Your task to perform on an android device: turn off smart reply in the gmail app Image 0: 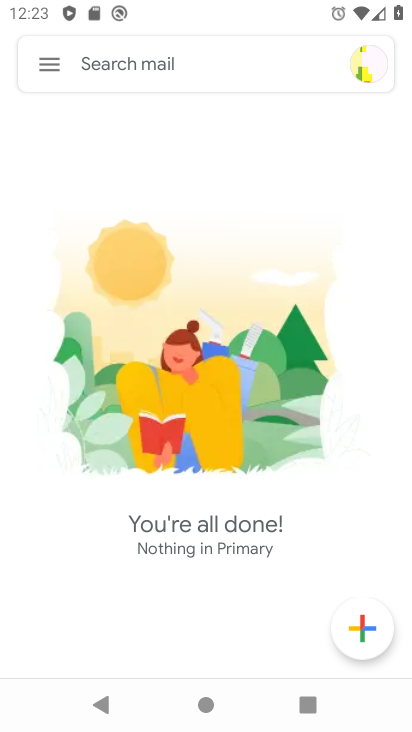
Step 0: click (52, 69)
Your task to perform on an android device: turn off smart reply in the gmail app Image 1: 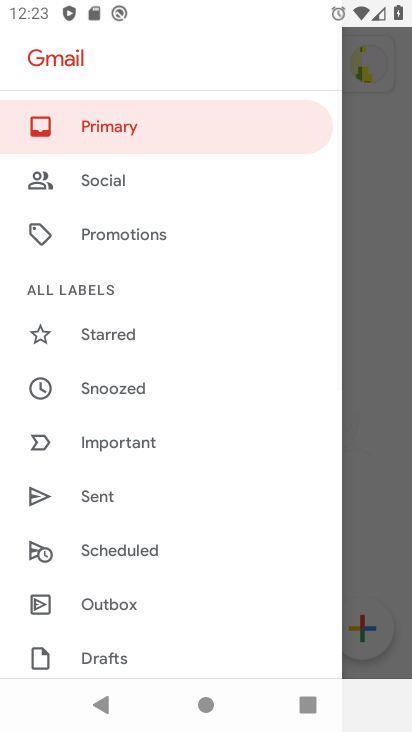
Step 1: drag from (230, 645) to (197, 23)
Your task to perform on an android device: turn off smart reply in the gmail app Image 2: 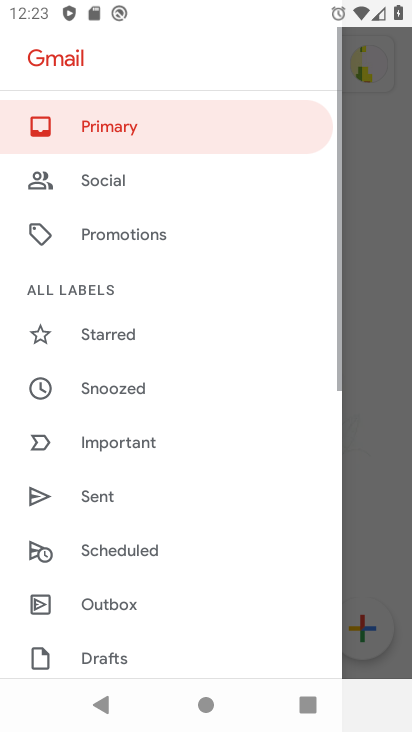
Step 2: drag from (206, 323) to (207, 0)
Your task to perform on an android device: turn off smart reply in the gmail app Image 3: 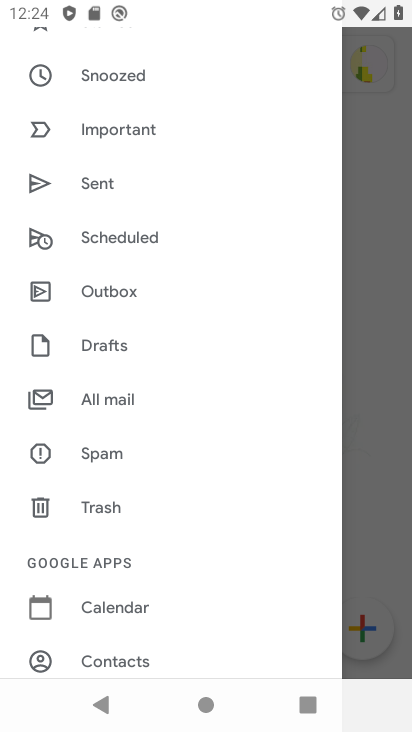
Step 3: drag from (236, 536) to (216, 55)
Your task to perform on an android device: turn off smart reply in the gmail app Image 4: 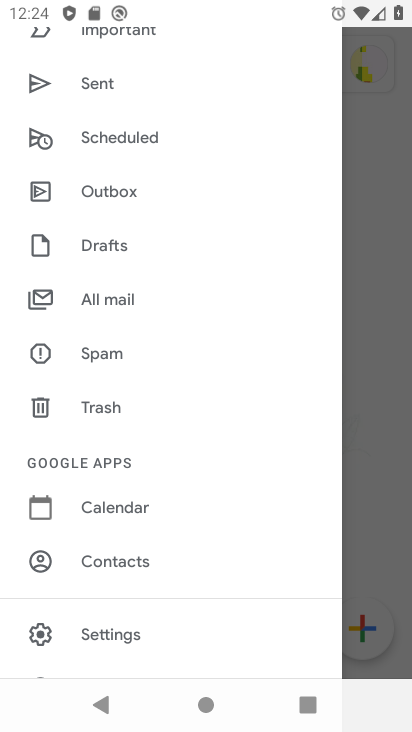
Step 4: click (128, 622)
Your task to perform on an android device: turn off smart reply in the gmail app Image 5: 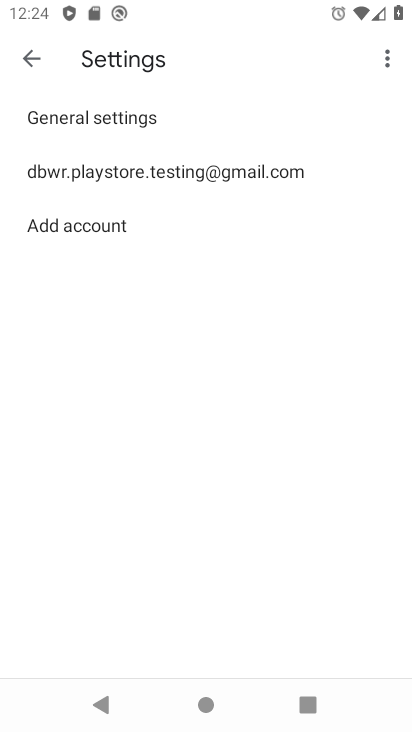
Step 5: click (88, 170)
Your task to perform on an android device: turn off smart reply in the gmail app Image 6: 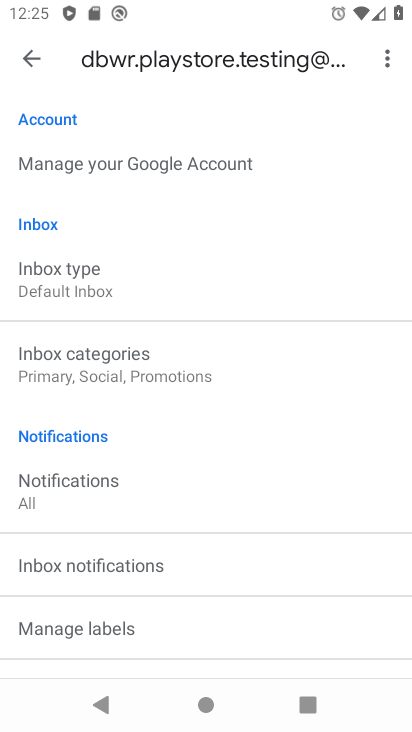
Step 6: drag from (265, 480) to (231, 213)
Your task to perform on an android device: turn off smart reply in the gmail app Image 7: 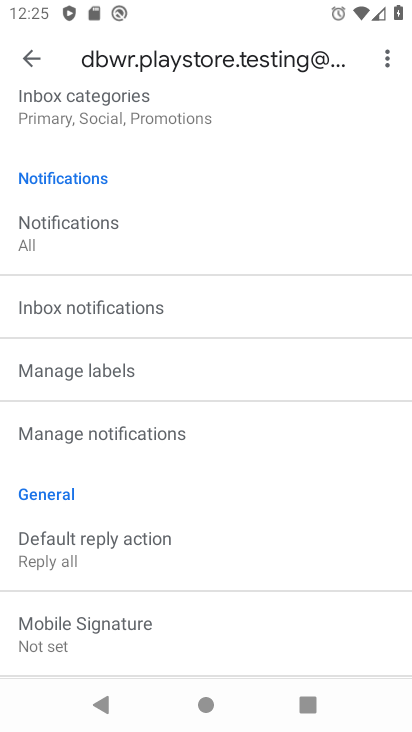
Step 7: drag from (265, 556) to (276, 24)
Your task to perform on an android device: turn off smart reply in the gmail app Image 8: 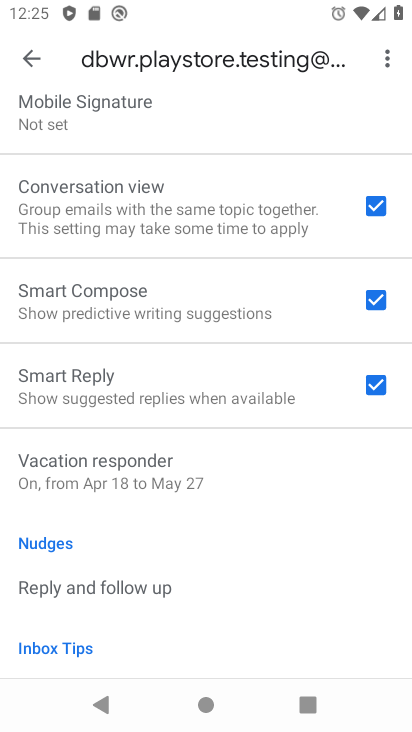
Step 8: click (374, 383)
Your task to perform on an android device: turn off smart reply in the gmail app Image 9: 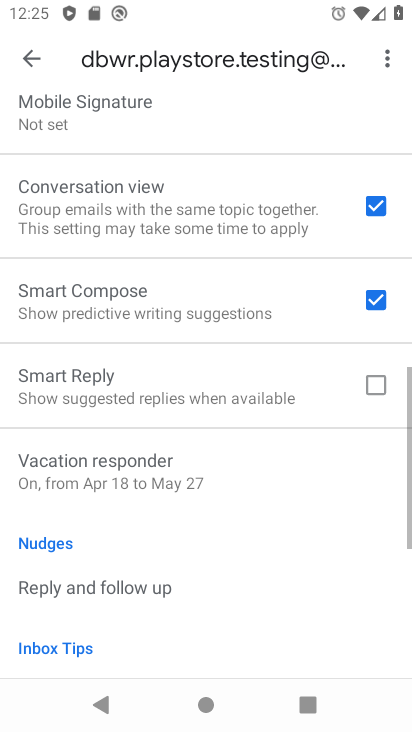
Step 9: task complete